Your task to perform on an android device: Open settings Image 0: 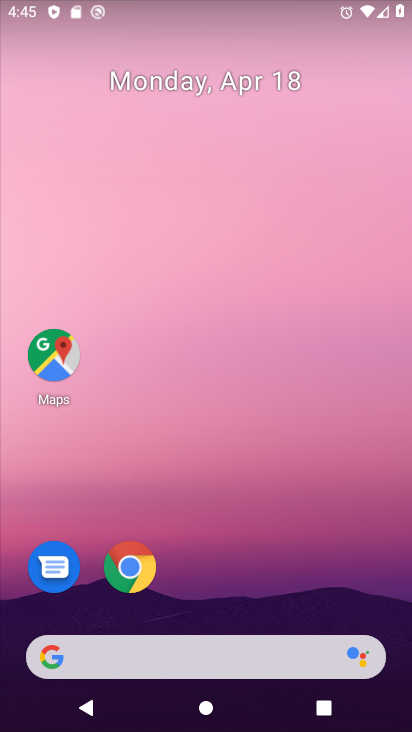
Step 0: drag from (242, 604) to (279, 79)
Your task to perform on an android device: Open settings Image 1: 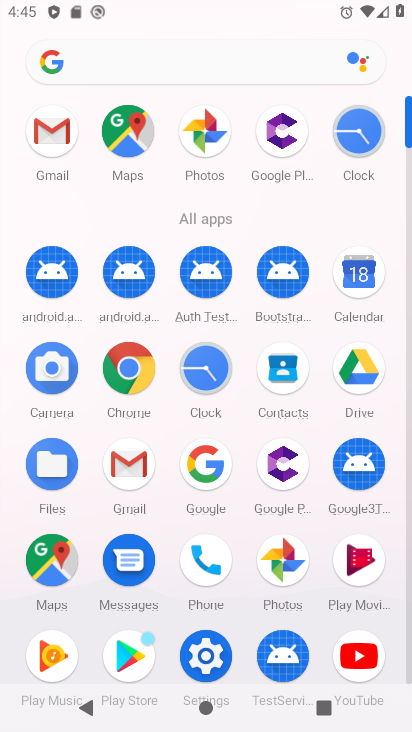
Step 1: click (204, 658)
Your task to perform on an android device: Open settings Image 2: 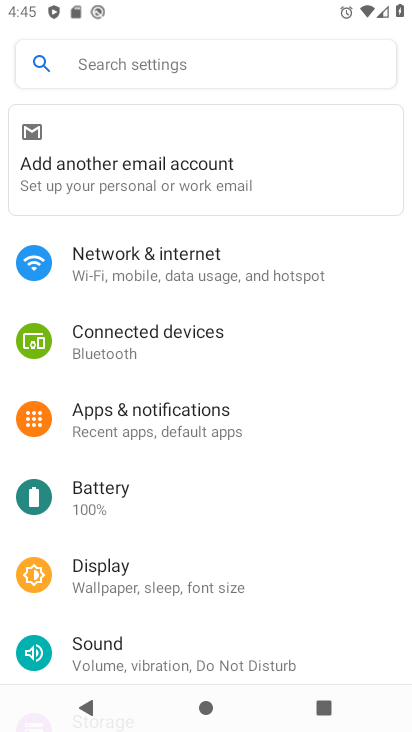
Step 2: task complete